Your task to perform on an android device: snooze an email in the gmail app Image 0: 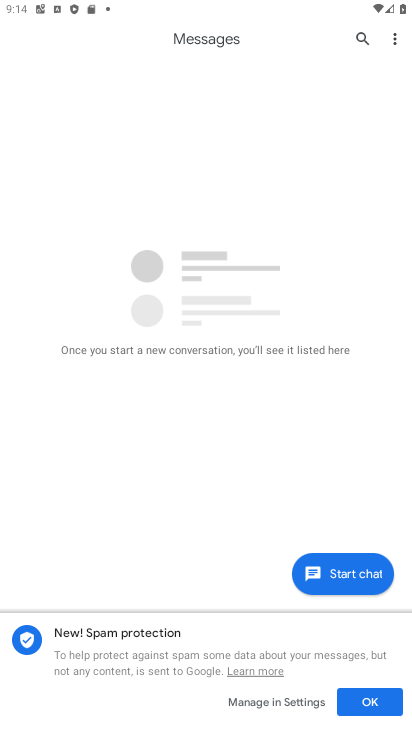
Step 0: press home button
Your task to perform on an android device: snooze an email in the gmail app Image 1: 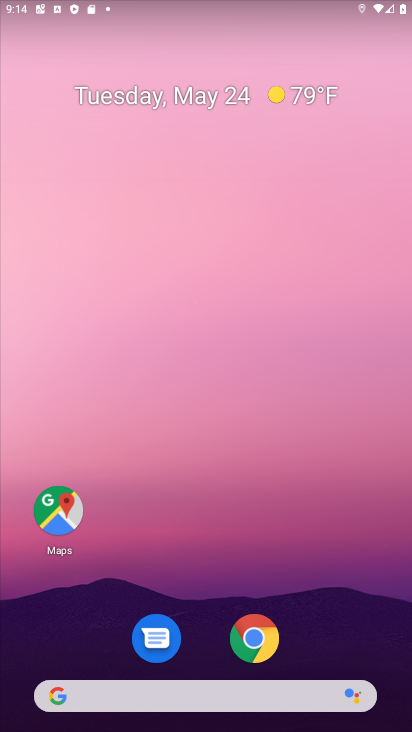
Step 1: drag from (153, 505) to (322, 19)
Your task to perform on an android device: snooze an email in the gmail app Image 2: 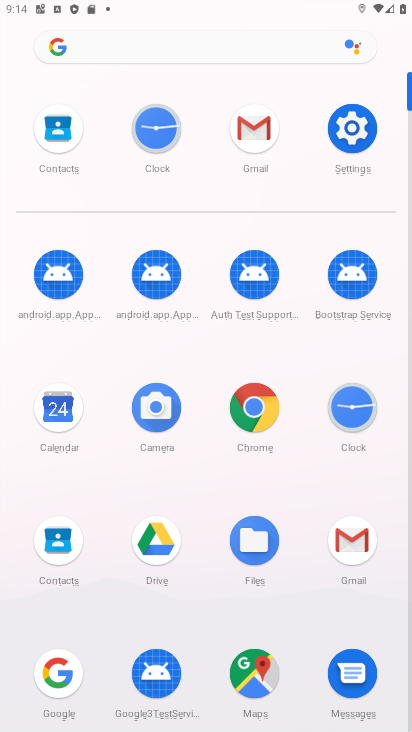
Step 2: click (355, 536)
Your task to perform on an android device: snooze an email in the gmail app Image 3: 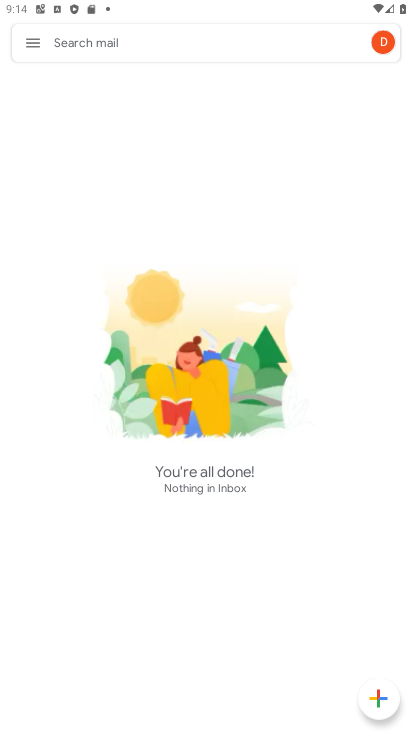
Step 3: click (37, 45)
Your task to perform on an android device: snooze an email in the gmail app Image 4: 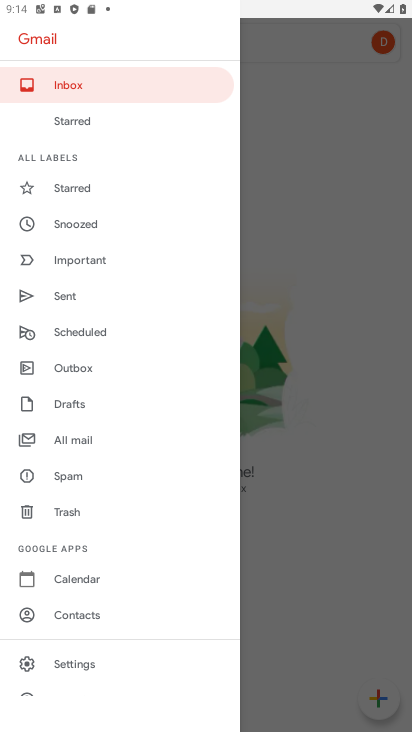
Step 4: click (85, 232)
Your task to perform on an android device: snooze an email in the gmail app Image 5: 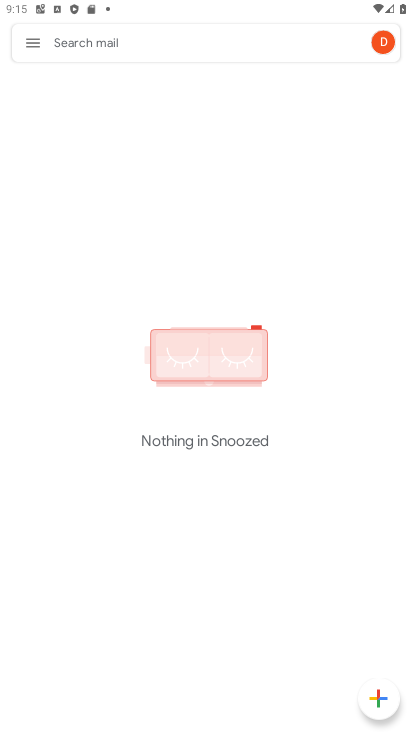
Step 5: click (41, 46)
Your task to perform on an android device: snooze an email in the gmail app Image 6: 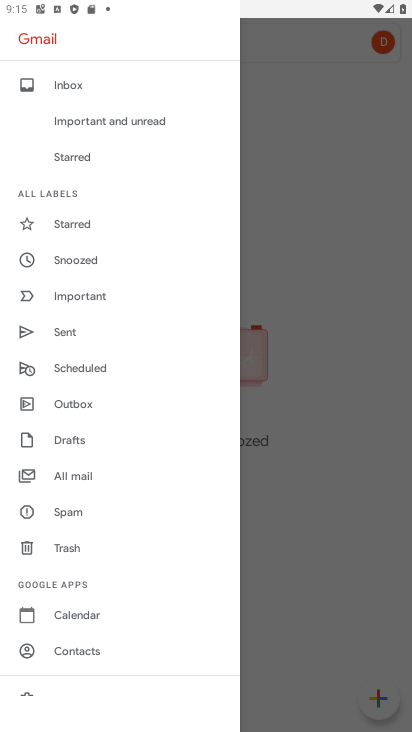
Step 6: click (70, 474)
Your task to perform on an android device: snooze an email in the gmail app Image 7: 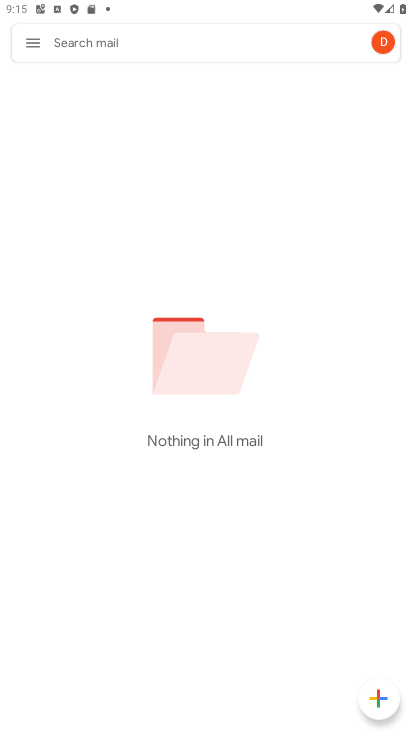
Step 7: task complete